Your task to perform on an android device: turn off improve location accuracy Image 0: 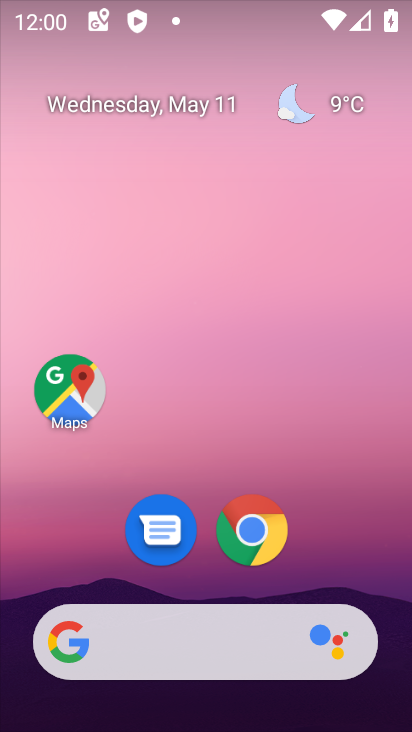
Step 0: drag from (331, 544) to (283, 52)
Your task to perform on an android device: turn off improve location accuracy Image 1: 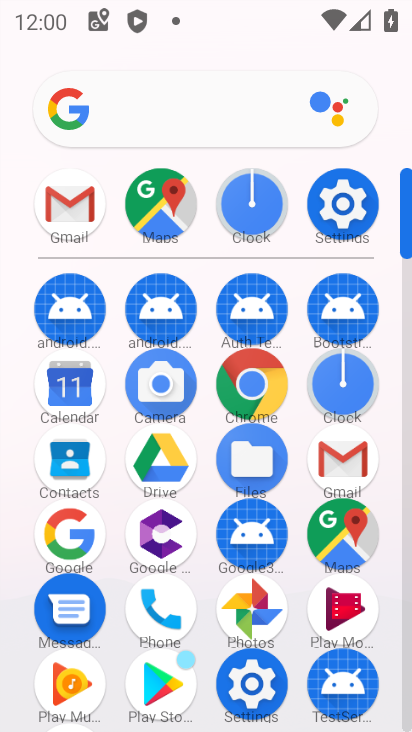
Step 1: click (249, 690)
Your task to perform on an android device: turn off improve location accuracy Image 2: 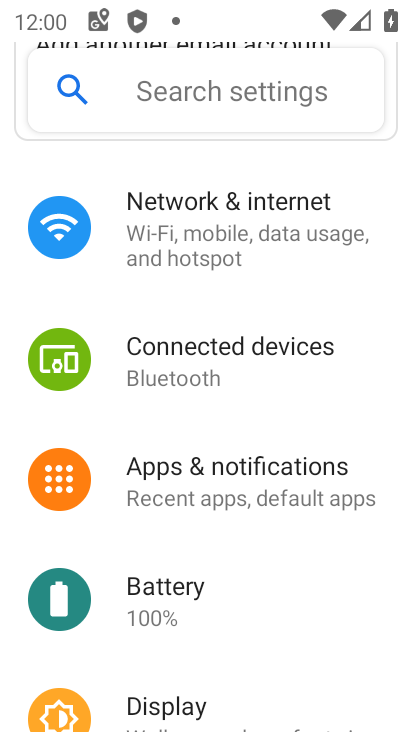
Step 2: drag from (313, 605) to (196, 80)
Your task to perform on an android device: turn off improve location accuracy Image 3: 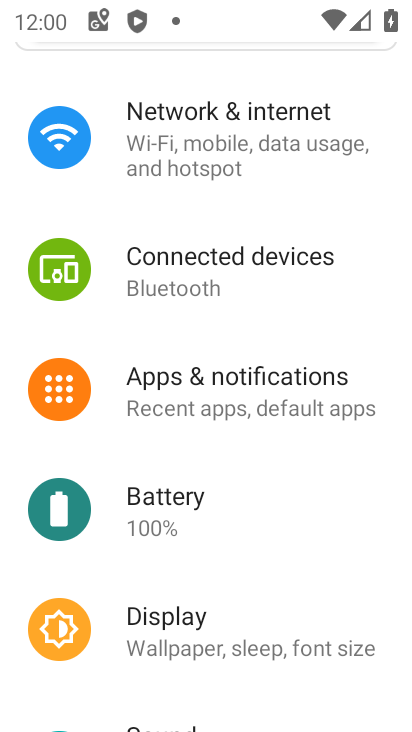
Step 3: drag from (250, 457) to (192, 12)
Your task to perform on an android device: turn off improve location accuracy Image 4: 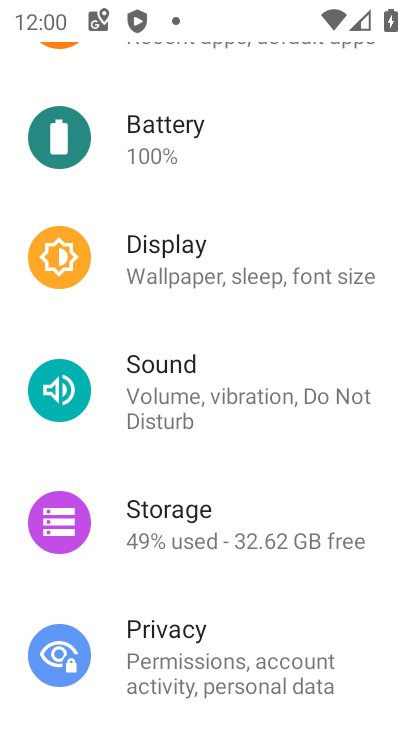
Step 4: drag from (217, 574) to (219, 20)
Your task to perform on an android device: turn off improve location accuracy Image 5: 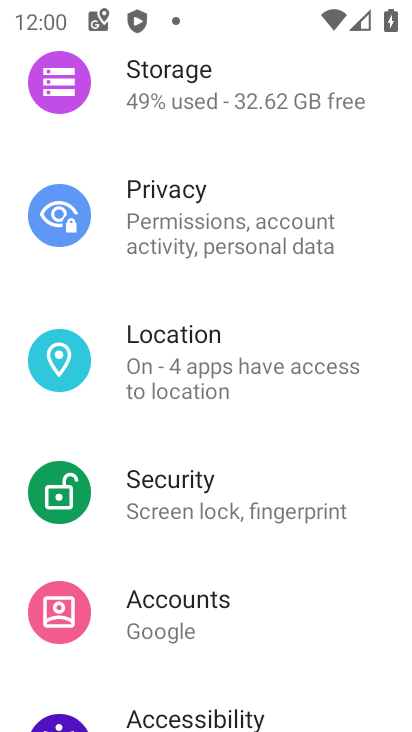
Step 5: click (232, 377)
Your task to perform on an android device: turn off improve location accuracy Image 6: 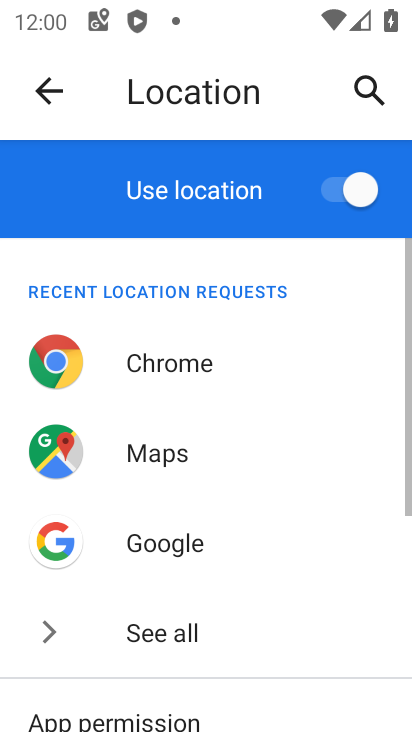
Step 6: drag from (262, 468) to (209, 16)
Your task to perform on an android device: turn off improve location accuracy Image 7: 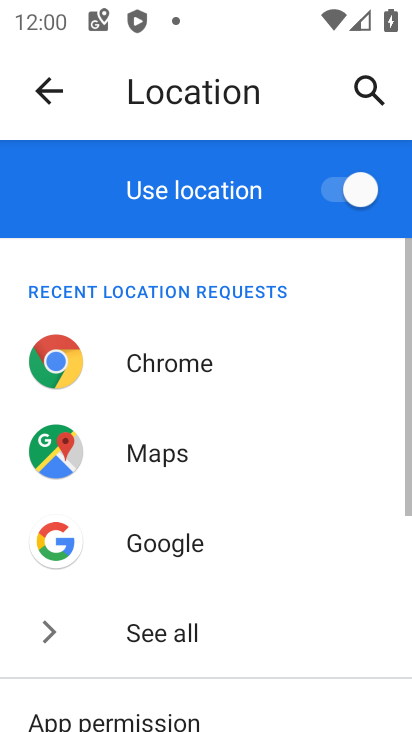
Step 7: drag from (278, 609) to (288, 94)
Your task to perform on an android device: turn off improve location accuracy Image 8: 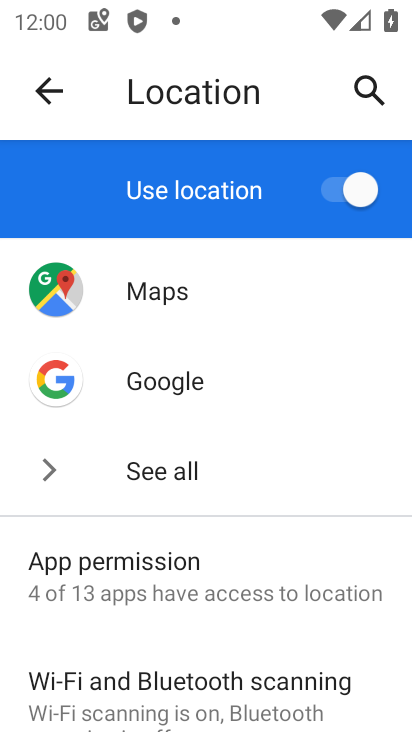
Step 8: drag from (268, 618) to (261, 51)
Your task to perform on an android device: turn off improve location accuracy Image 9: 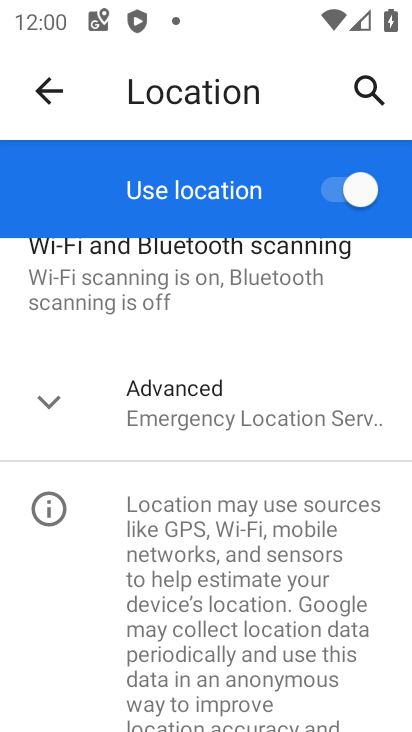
Step 9: click (188, 407)
Your task to perform on an android device: turn off improve location accuracy Image 10: 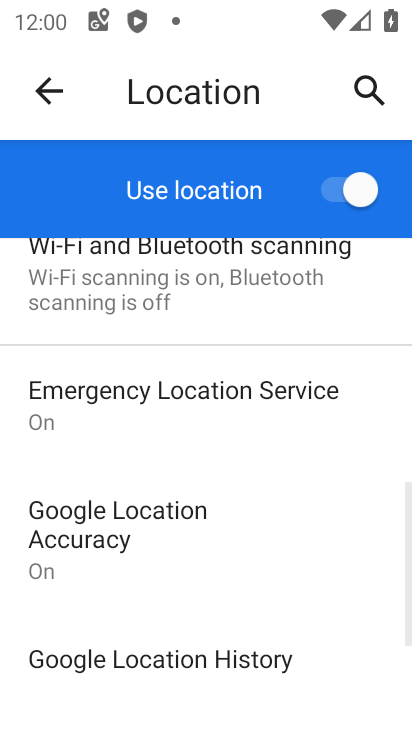
Step 10: click (203, 547)
Your task to perform on an android device: turn off improve location accuracy Image 11: 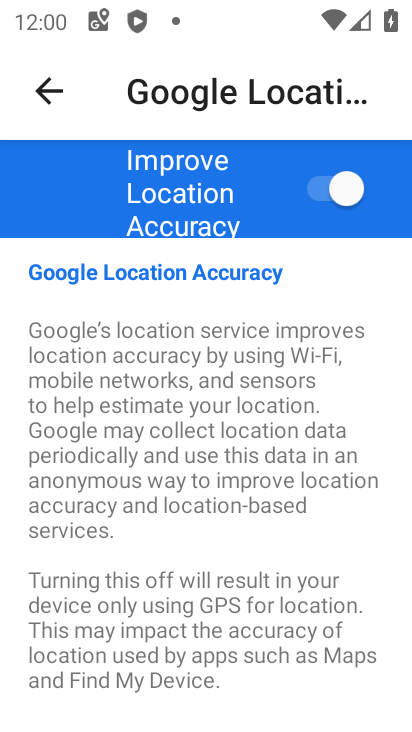
Step 11: click (310, 187)
Your task to perform on an android device: turn off improve location accuracy Image 12: 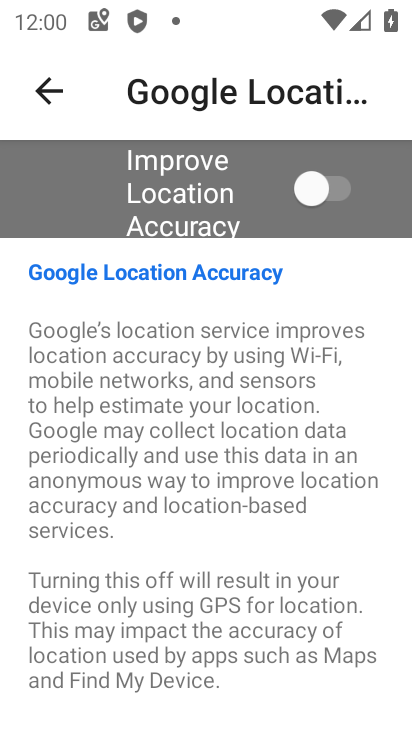
Step 12: task complete